Your task to perform on an android device: Empty the shopping cart on target.com. Search for "logitech g pro" on target.com, select the first entry, and add it to the cart. Image 0: 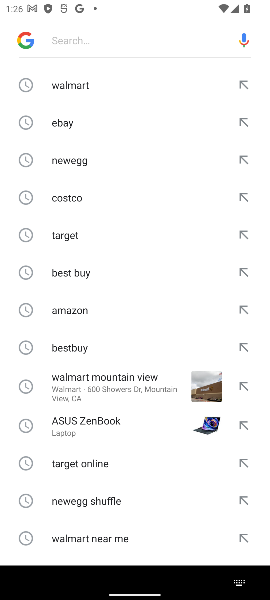
Step 0: press home button
Your task to perform on an android device: Empty the shopping cart on target.com. Search for "logitech g pro" on target.com, select the first entry, and add it to the cart. Image 1: 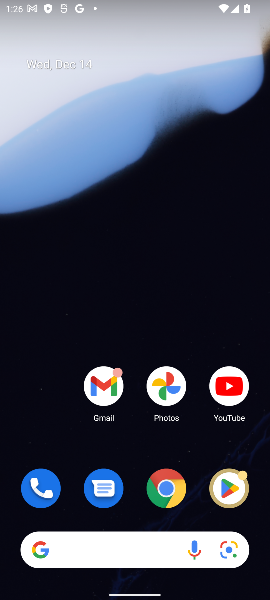
Step 1: drag from (110, 545) to (162, 178)
Your task to perform on an android device: Empty the shopping cart on target.com. Search for "logitech g pro" on target.com, select the first entry, and add it to the cart. Image 2: 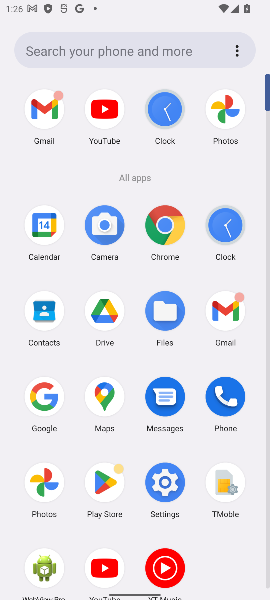
Step 2: click (49, 401)
Your task to perform on an android device: Empty the shopping cart on target.com. Search for "logitech g pro" on target.com, select the first entry, and add it to the cart. Image 3: 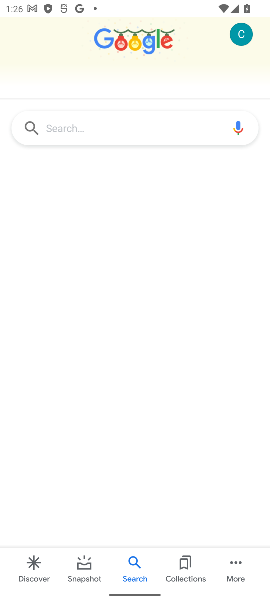
Step 3: click (93, 131)
Your task to perform on an android device: Empty the shopping cart on target.com. Search for "logitech g pro" on target.com, select the first entry, and add it to the cart. Image 4: 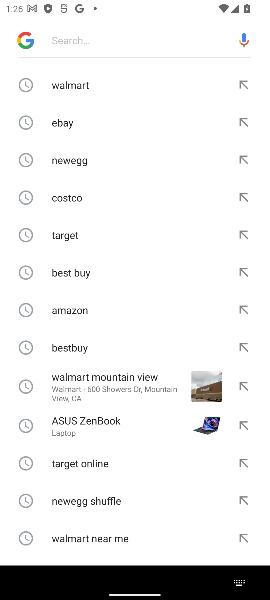
Step 4: click (62, 237)
Your task to perform on an android device: Empty the shopping cart on target.com. Search for "logitech g pro" on target.com, select the first entry, and add it to the cart. Image 5: 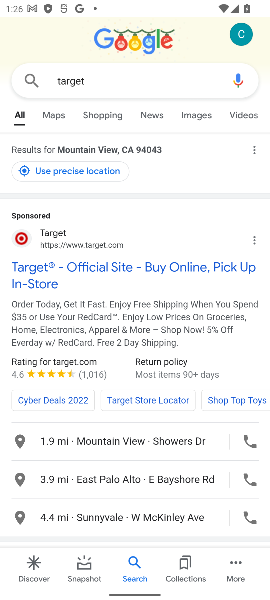
Step 5: click (55, 276)
Your task to perform on an android device: Empty the shopping cart on target.com. Search for "logitech g pro" on target.com, select the first entry, and add it to the cart. Image 6: 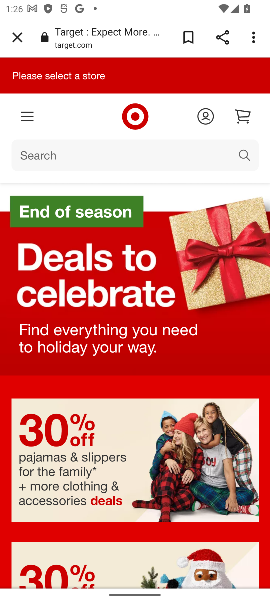
Step 6: click (87, 153)
Your task to perform on an android device: Empty the shopping cart on target.com. Search for "logitech g pro" on target.com, select the first entry, and add it to the cart. Image 7: 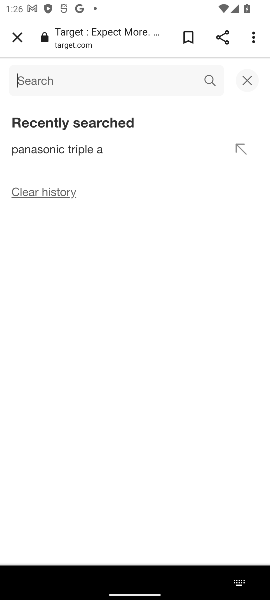
Step 7: type "logitech g pro"
Your task to perform on an android device: Empty the shopping cart on target.com. Search for "logitech g pro" on target.com, select the first entry, and add it to the cart. Image 8: 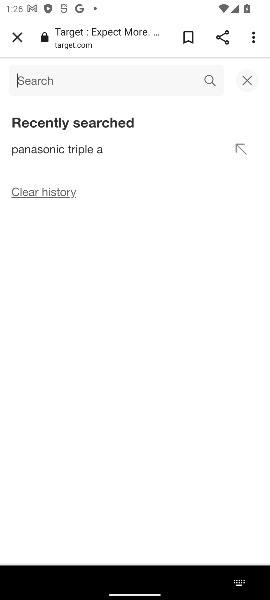
Step 8: click (208, 80)
Your task to perform on an android device: Empty the shopping cart on target.com. Search for "logitech g pro" on target.com, select the first entry, and add it to the cart. Image 9: 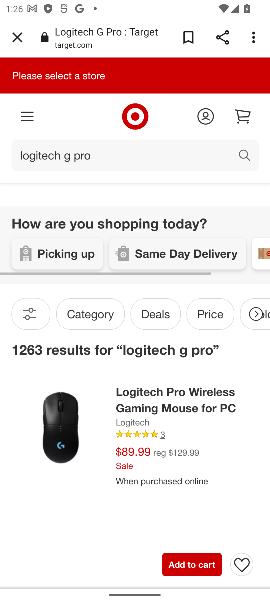
Step 9: click (187, 569)
Your task to perform on an android device: Empty the shopping cart on target.com. Search for "logitech g pro" on target.com, select the first entry, and add it to the cart. Image 10: 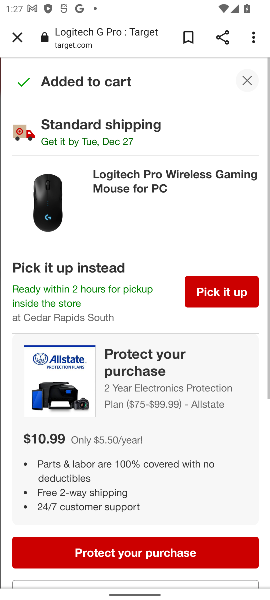
Step 10: drag from (181, 486) to (207, 277)
Your task to perform on an android device: Empty the shopping cart on target.com. Search for "logitech g pro" on target.com, select the first entry, and add it to the cart. Image 11: 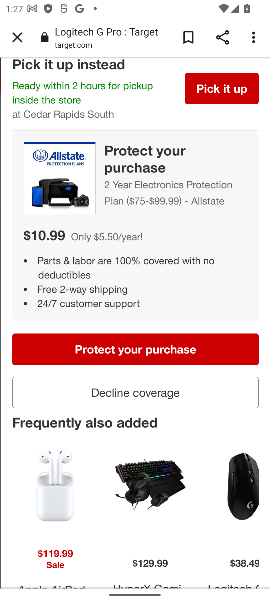
Step 11: drag from (133, 77) to (184, 433)
Your task to perform on an android device: Empty the shopping cart on target.com. Search for "logitech g pro" on target.com, select the first entry, and add it to the cart. Image 12: 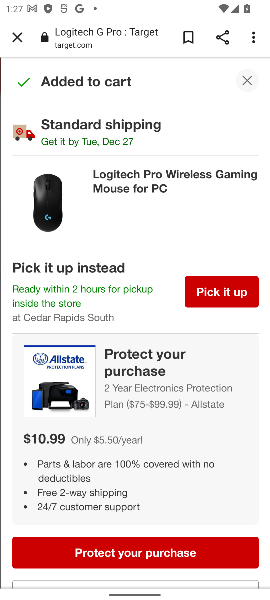
Step 12: click (198, 295)
Your task to perform on an android device: Empty the shopping cart on target.com. Search for "logitech g pro" on target.com, select the first entry, and add it to the cart. Image 13: 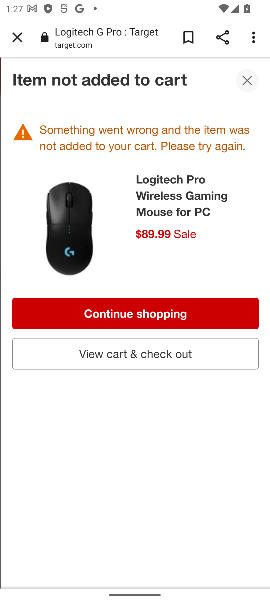
Step 13: click (136, 357)
Your task to perform on an android device: Empty the shopping cart on target.com. Search for "logitech g pro" on target.com, select the first entry, and add it to the cart. Image 14: 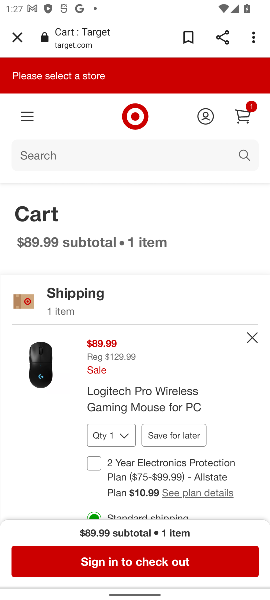
Step 14: task complete